Your task to perform on an android device: Go to accessibility settings Image 0: 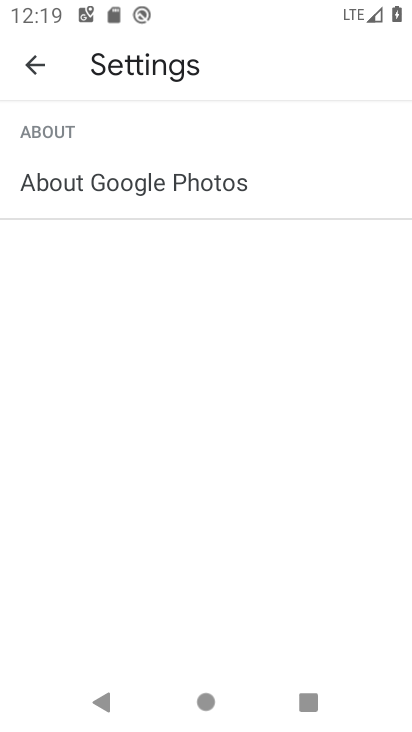
Step 0: press home button
Your task to perform on an android device: Go to accessibility settings Image 1: 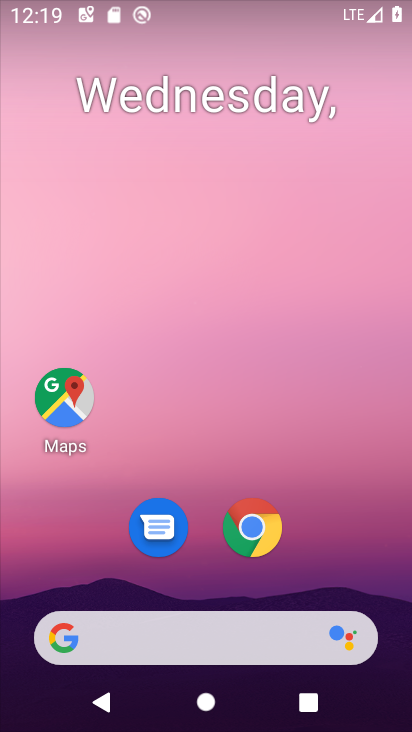
Step 1: drag from (233, 668) to (319, 24)
Your task to perform on an android device: Go to accessibility settings Image 2: 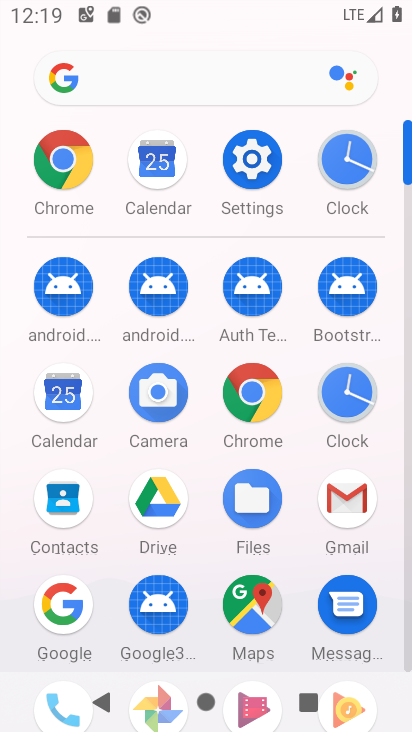
Step 2: click (255, 151)
Your task to perform on an android device: Go to accessibility settings Image 3: 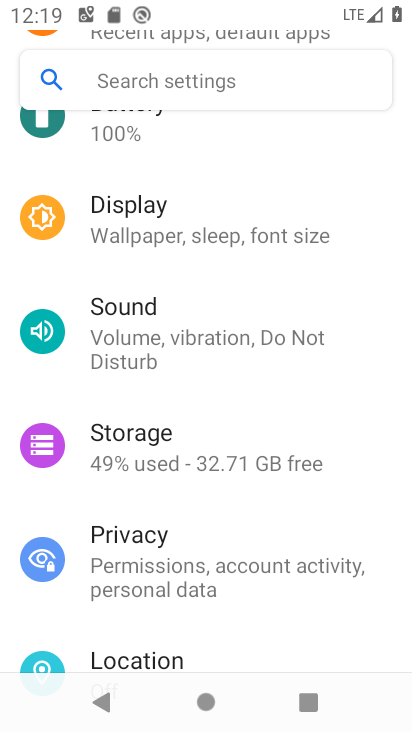
Step 3: drag from (205, 652) to (299, 98)
Your task to perform on an android device: Go to accessibility settings Image 4: 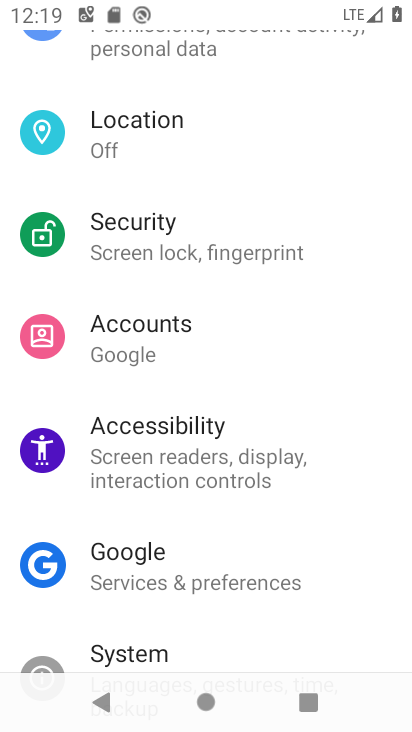
Step 4: click (227, 472)
Your task to perform on an android device: Go to accessibility settings Image 5: 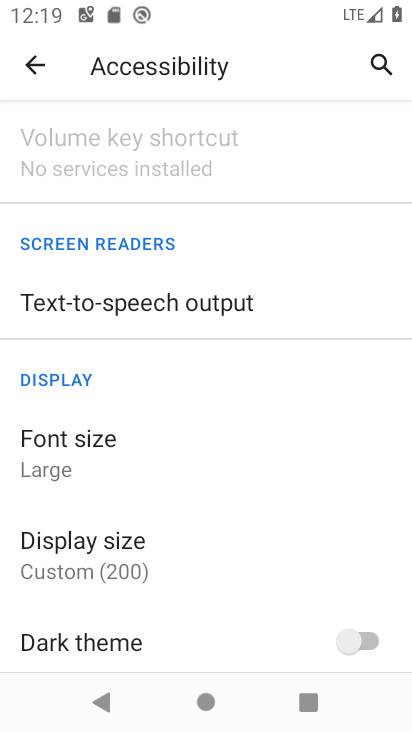
Step 5: task complete